Your task to perform on an android device: When is my next meeting? Image 0: 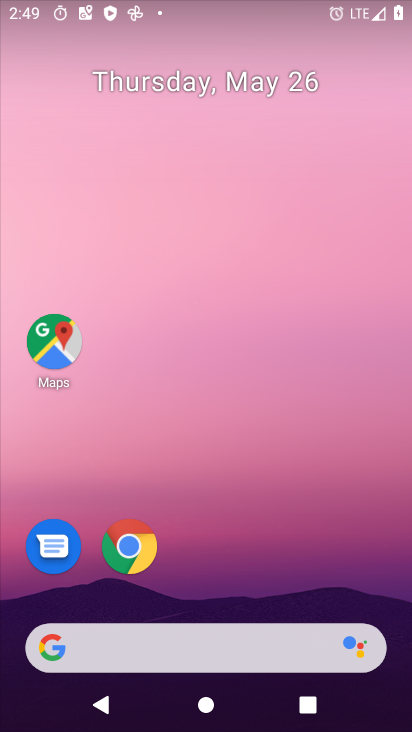
Step 0: drag from (183, 549) to (232, 118)
Your task to perform on an android device: When is my next meeting? Image 1: 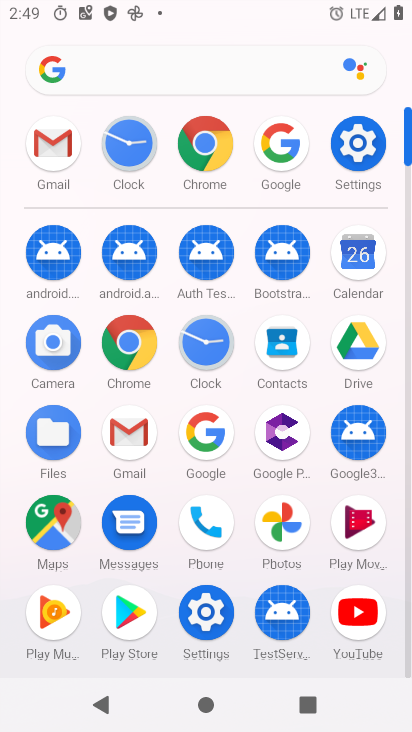
Step 1: click (352, 253)
Your task to perform on an android device: When is my next meeting? Image 2: 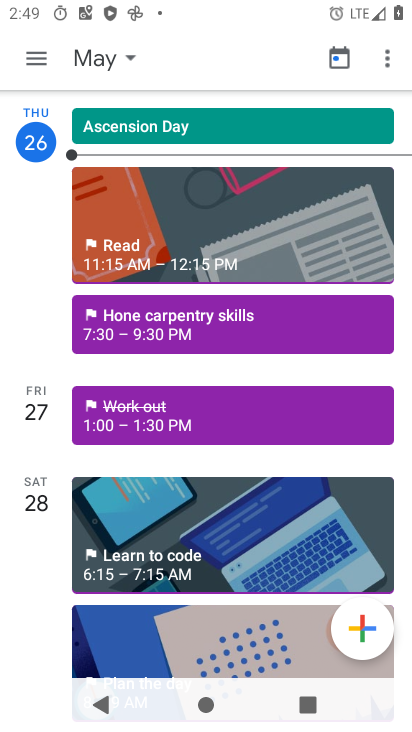
Step 2: click (128, 63)
Your task to perform on an android device: When is my next meeting? Image 3: 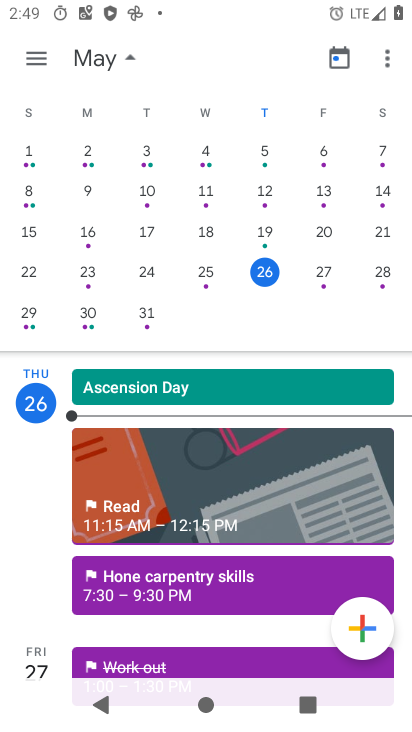
Step 3: click (328, 279)
Your task to perform on an android device: When is my next meeting? Image 4: 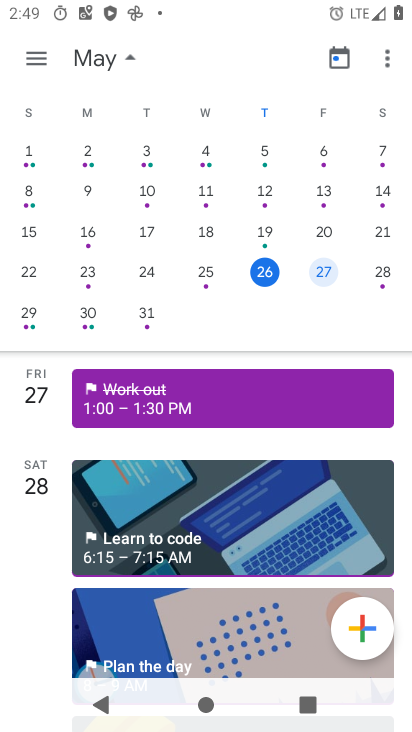
Step 4: task complete